Your task to perform on an android device: Search for seafood restaurants on Google Maps Image 0: 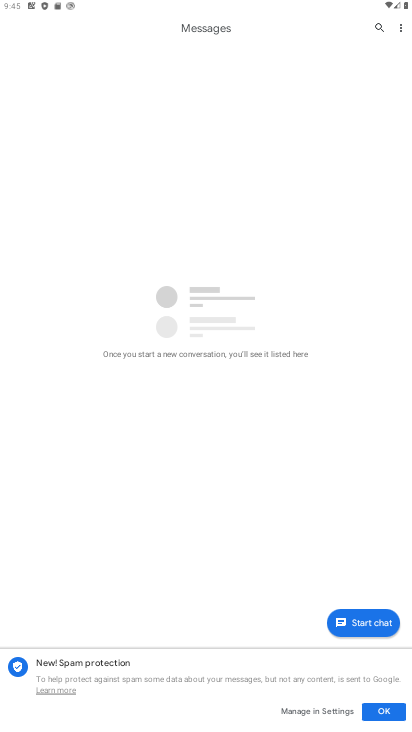
Step 0: drag from (224, 601) to (247, 241)
Your task to perform on an android device: Search for seafood restaurants on Google Maps Image 1: 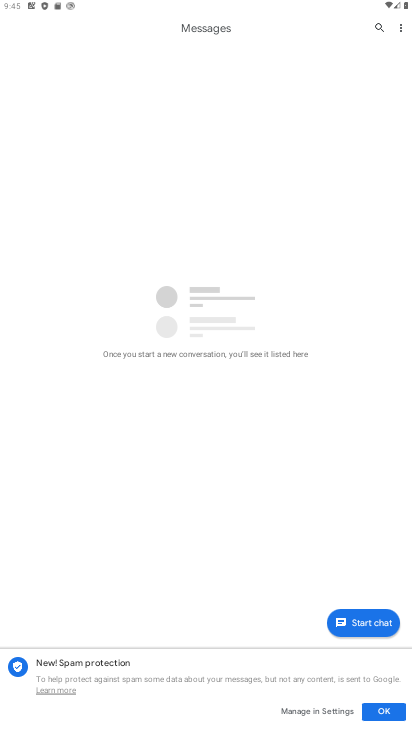
Step 1: drag from (241, 572) to (245, 99)
Your task to perform on an android device: Search for seafood restaurants on Google Maps Image 2: 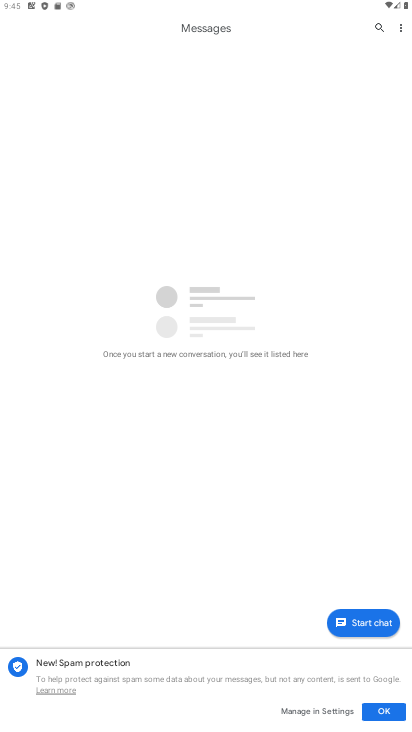
Step 2: press home button
Your task to perform on an android device: Search for seafood restaurants on Google Maps Image 3: 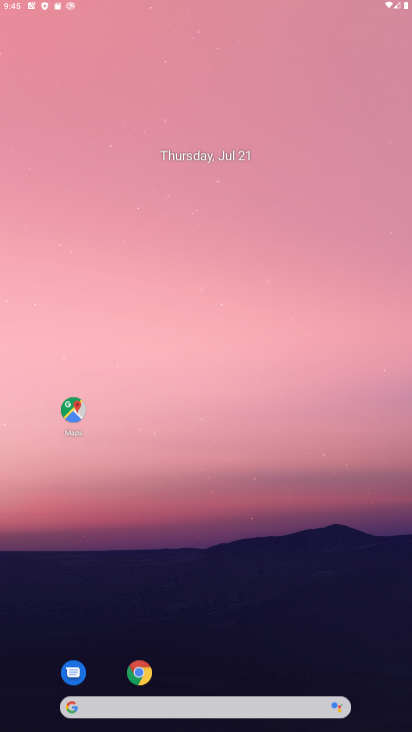
Step 3: drag from (173, 538) to (231, 11)
Your task to perform on an android device: Search for seafood restaurants on Google Maps Image 4: 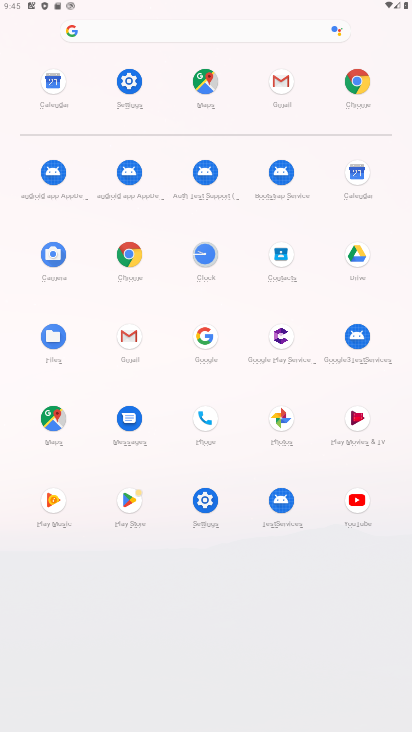
Step 4: click (52, 420)
Your task to perform on an android device: Search for seafood restaurants on Google Maps Image 5: 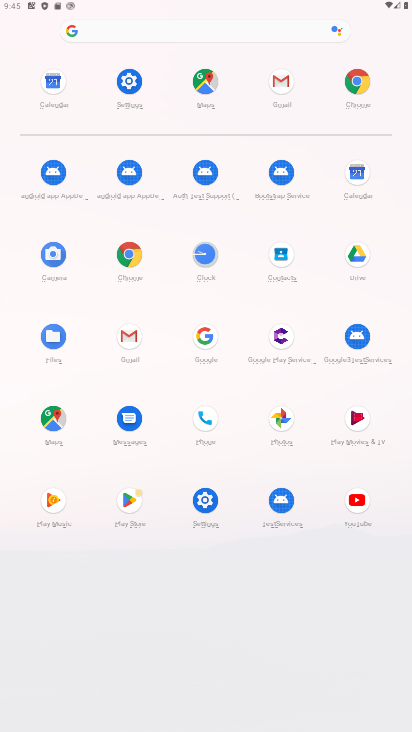
Step 5: click (51, 419)
Your task to perform on an android device: Search for seafood restaurants on Google Maps Image 6: 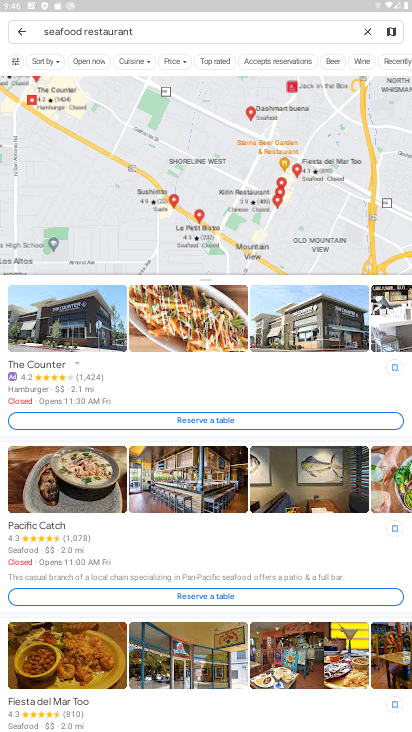
Step 6: task complete